Your task to perform on an android device: Show me recent news Image 0: 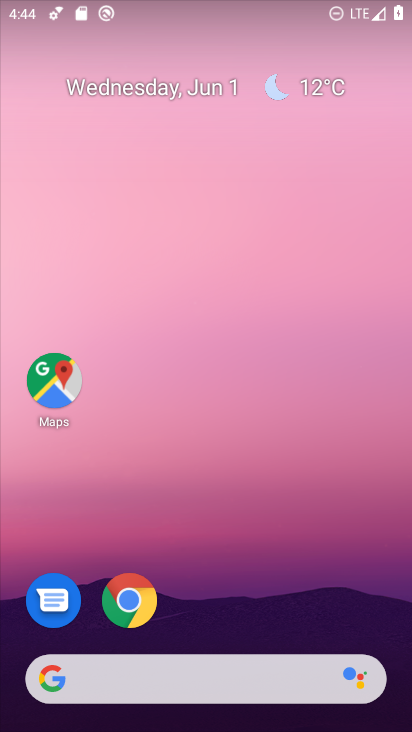
Step 0: drag from (14, 253) to (391, 298)
Your task to perform on an android device: Show me recent news Image 1: 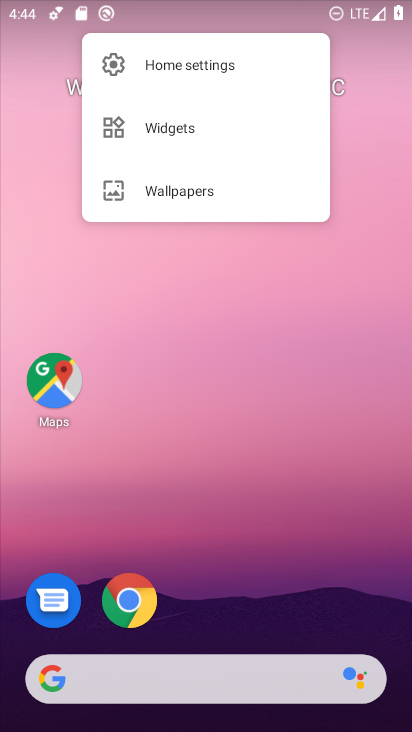
Step 1: task complete